Your task to perform on an android device: turn off notifications settings in the gmail app Image 0: 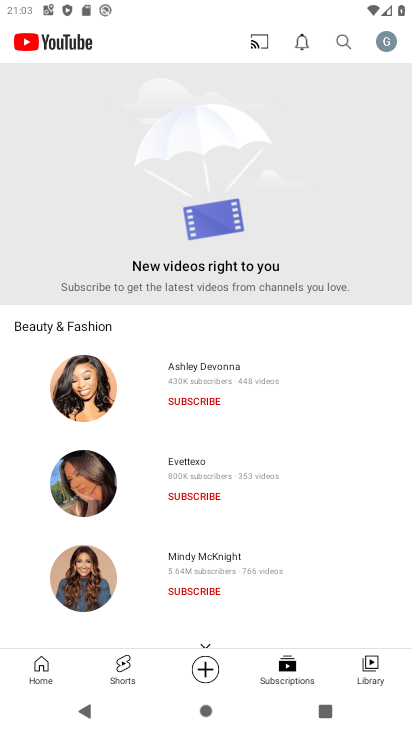
Step 0: press home button
Your task to perform on an android device: turn off notifications settings in the gmail app Image 1: 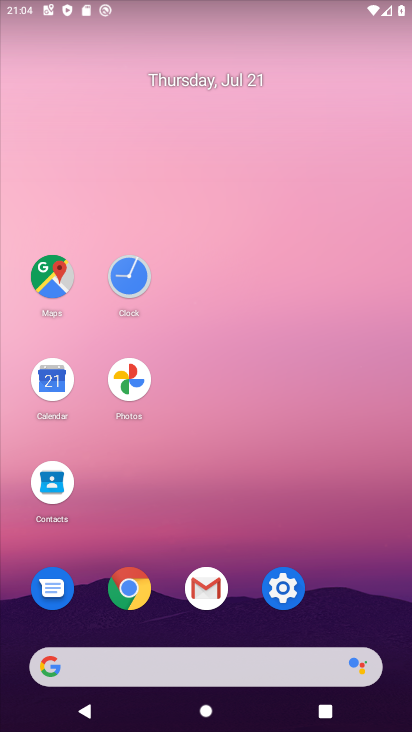
Step 1: click (205, 589)
Your task to perform on an android device: turn off notifications settings in the gmail app Image 2: 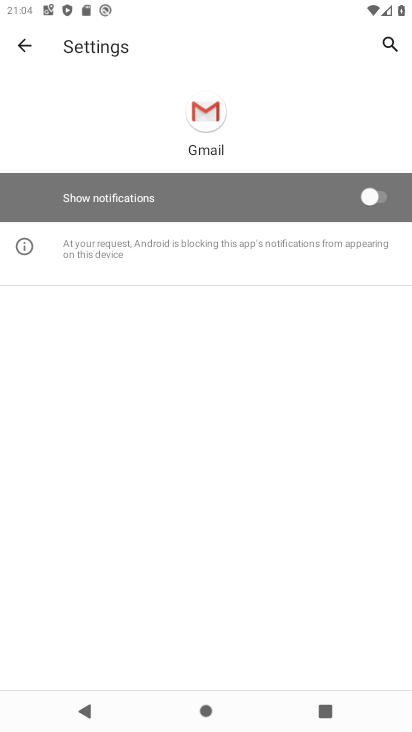
Step 2: task complete